Your task to perform on an android device: Search for sushi restaurants on Maps Image 0: 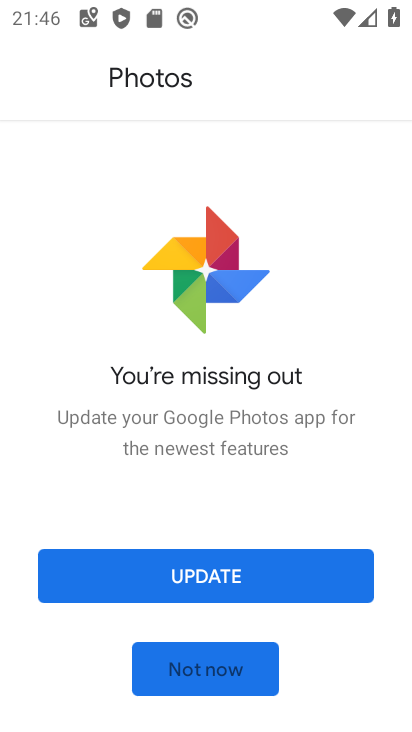
Step 0: press home button
Your task to perform on an android device: Search for sushi restaurants on Maps Image 1: 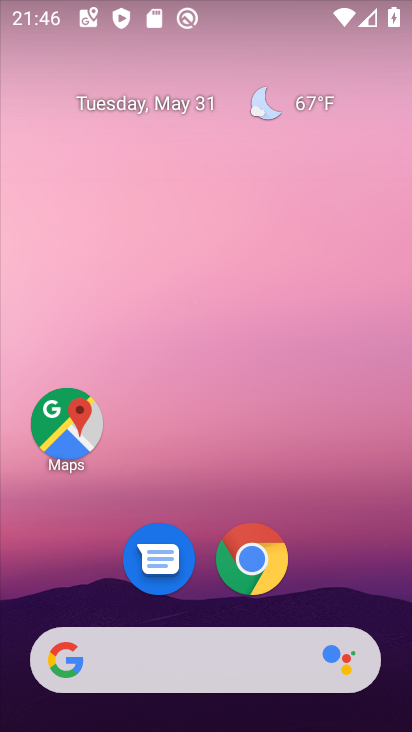
Step 1: click (64, 422)
Your task to perform on an android device: Search for sushi restaurants on Maps Image 2: 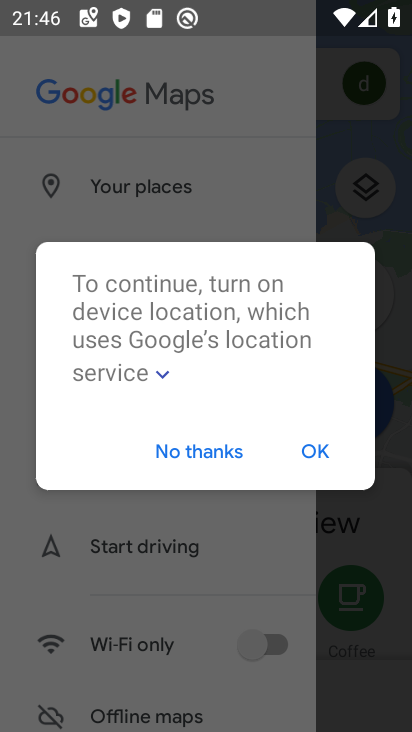
Step 2: click (297, 457)
Your task to perform on an android device: Search for sushi restaurants on Maps Image 3: 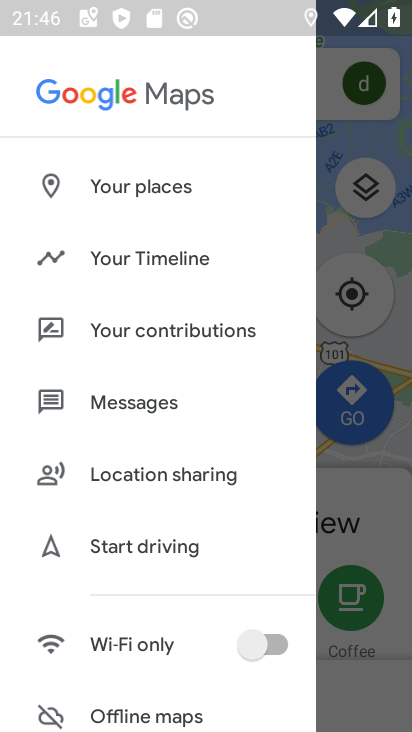
Step 3: click (406, 271)
Your task to perform on an android device: Search for sushi restaurants on Maps Image 4: 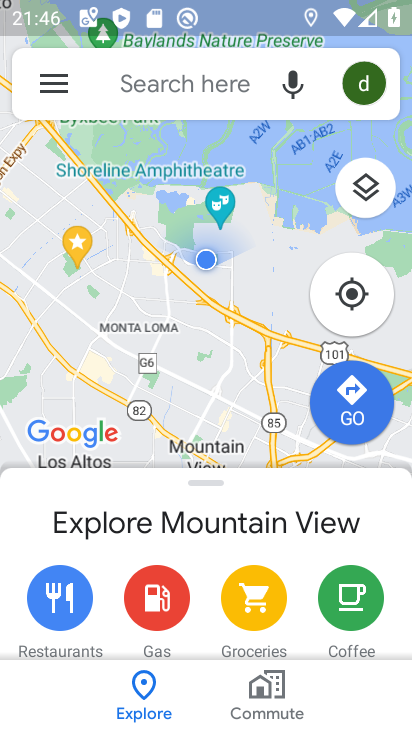
Step 4: click (155, 74)
Your task to perform on an android device: Search for sushi restaurants on Maps Image 5: 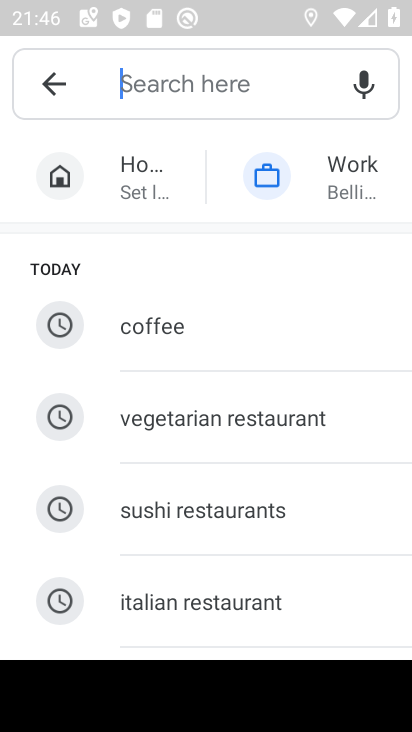
Step 5: click (190, 516)
Your task to perform on an android device: Search for sushi restaurants on Maps Image 6: 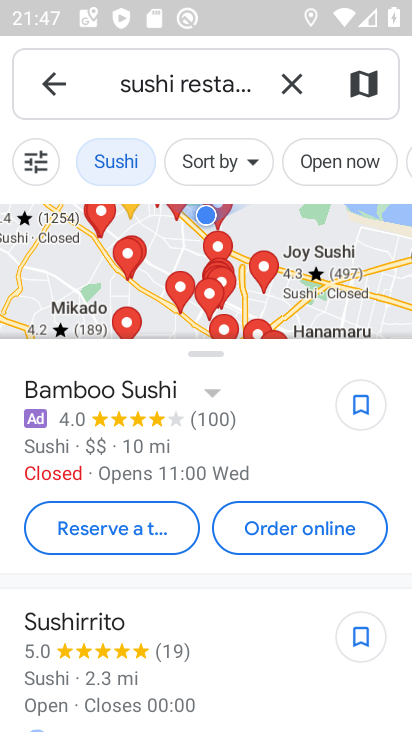
Step 6: task complete